Your task to perform on an android device: Go to ESPN.com Image 0: 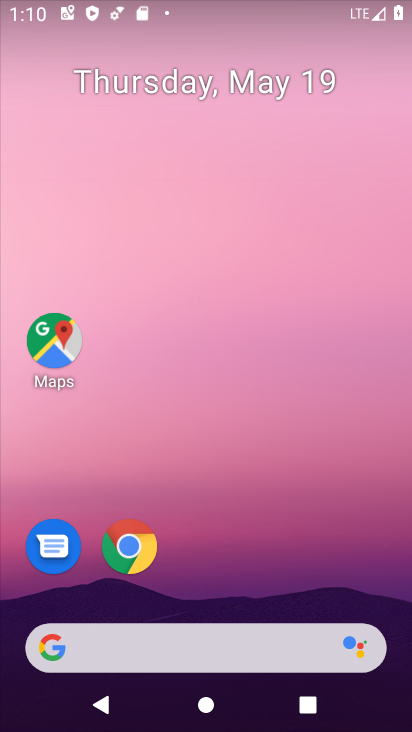
Step 0: click (263, 639)
Your task to perform on an android device: Go to ESPN.com Image 1: 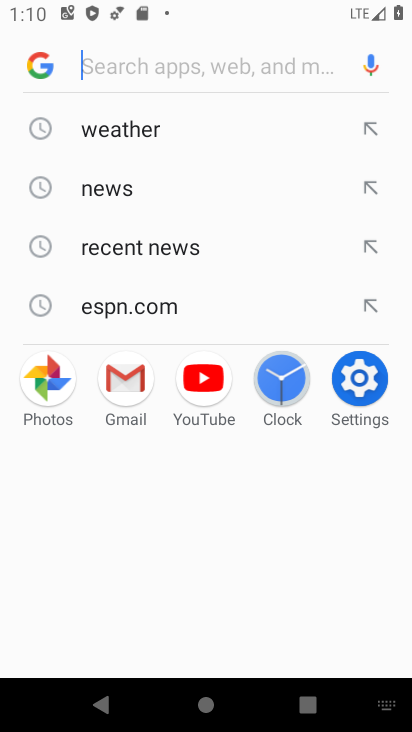
Step 1: click (127, 307)
Your task to perform on an android device: Go to ESPN.com Image 2: 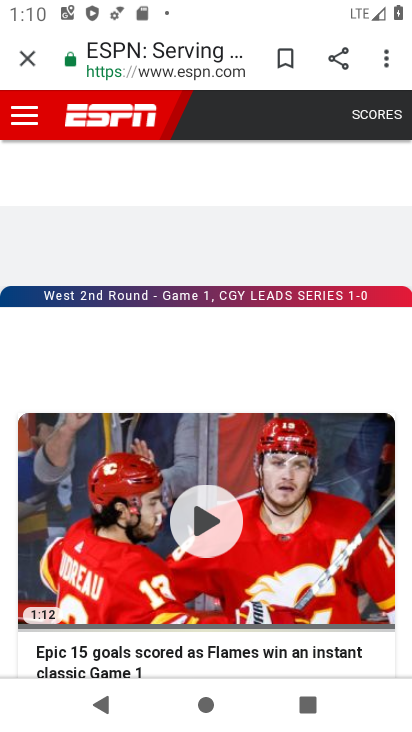
Step 2: task complete